Your task to perform on an android device: Open calendar and show me the third week of next month Image 0: 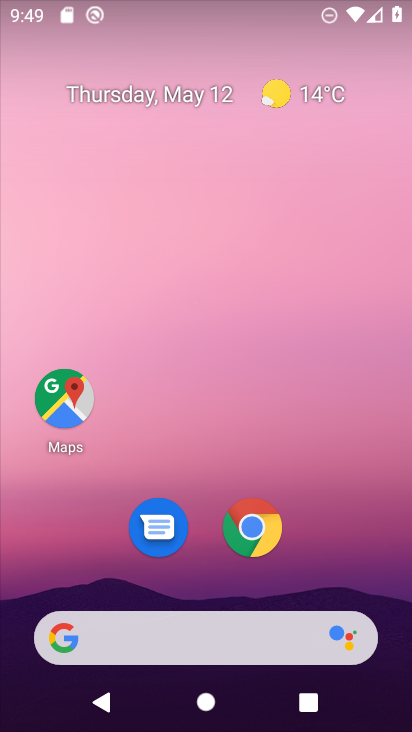
Step 0: drag from (338, 577) to (20, 285)
Your task to perform on an android device: Open calendar and show me the third week of next month Image 1: 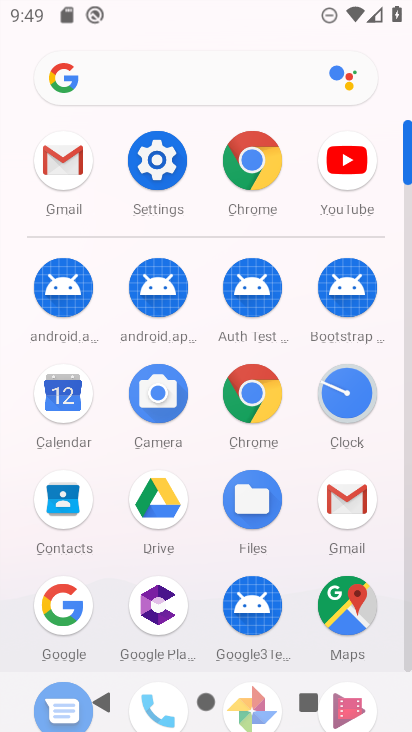
Step 1: click (70, 412)
Your task to perform on an android device: Open calendar and show me the third week of next month Image 2: 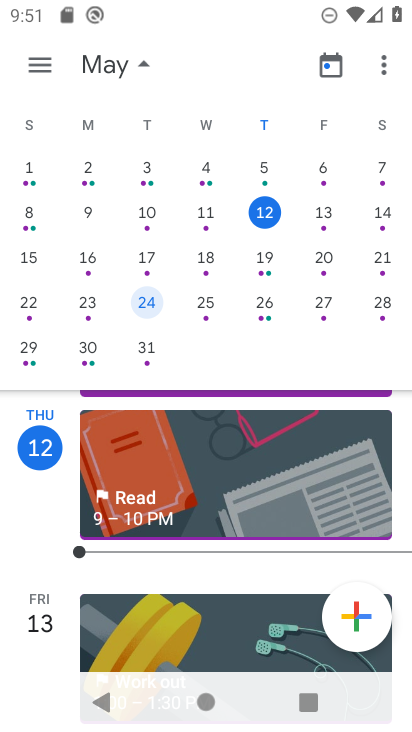
Step 2: drag from (401, 251) to (2, 197)
Your task to perform on an android device: Open calendar and show me the third week of next month Image 3: 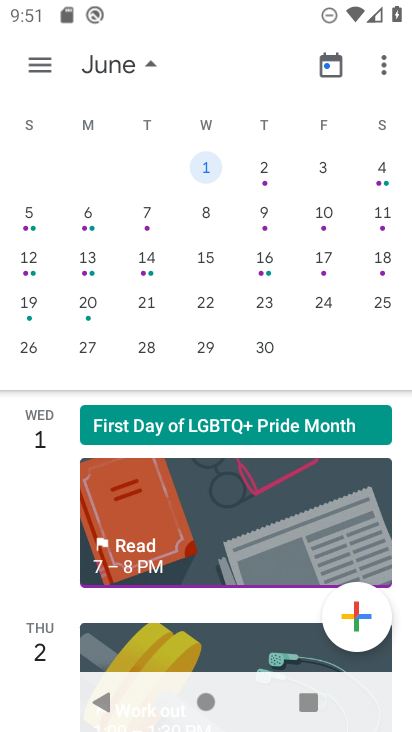
Step 3: click (149, 292)
Your task to perform on an android device: Open calendar and show me the third week of next month Image 4: 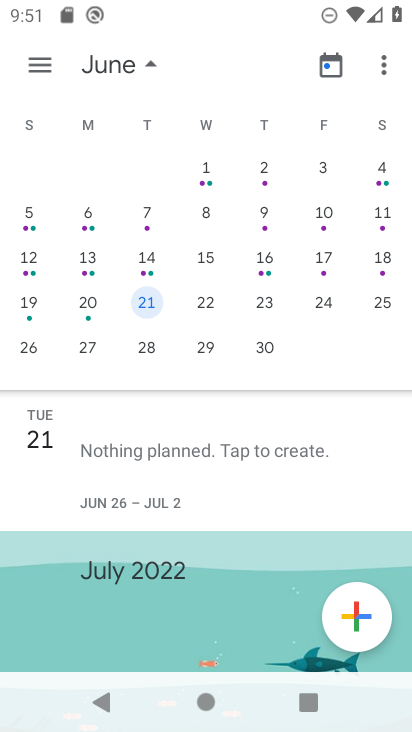
Step 4: task complete